Your task to perform on an android device: delete location history Image 0: 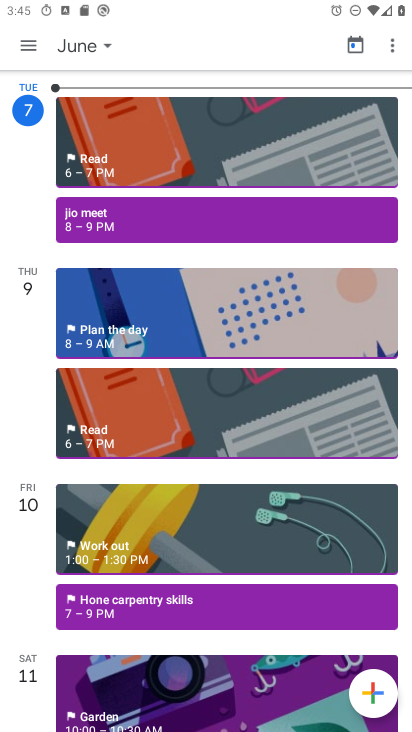
Step 0: press home button
Your task to perform on an android device: delete location history Image 1: 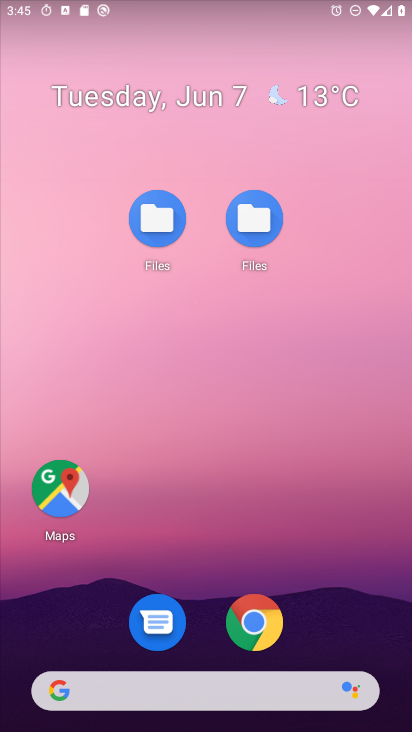
Step 1: drag from (325, 602) to (357, 255)
Your task to perform on an android device: delete location history Image 2: 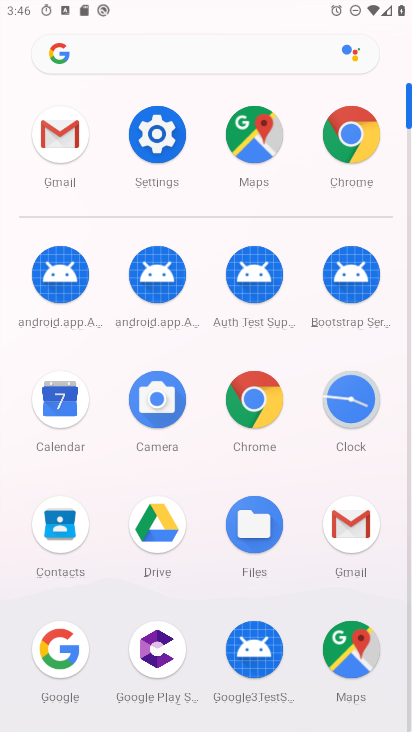
Step 2: click (407, 436)
Your task to perform on an android device: delete location history Image 3: 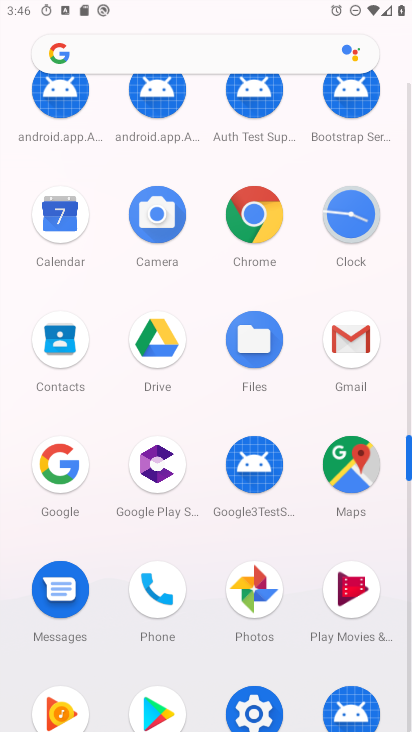
Step 3: click (406, 558)
Your task to perform on an android device: delete location history Image 4: 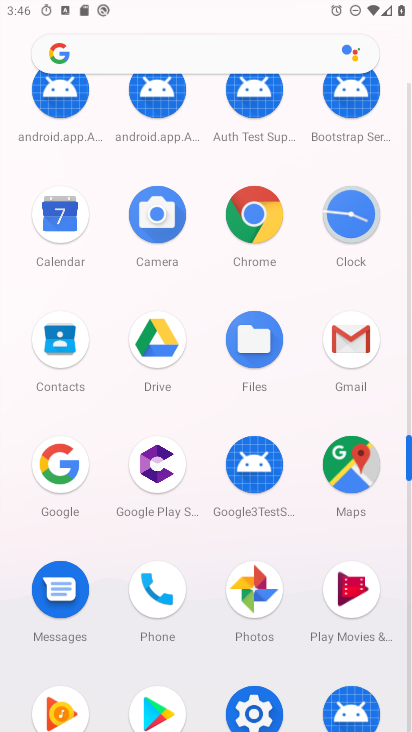
Step 4: click (409, 565)
Your task to perform on an android device: delete location history Image 5: 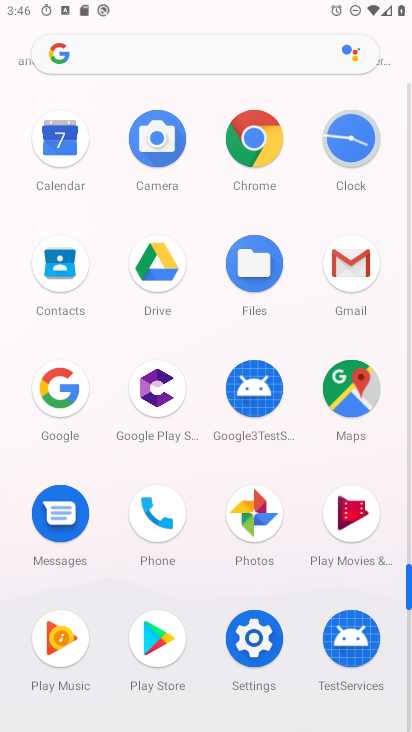
Step 5: click (260, 639)
Your task to perform on an android device: delete location history Image 6: 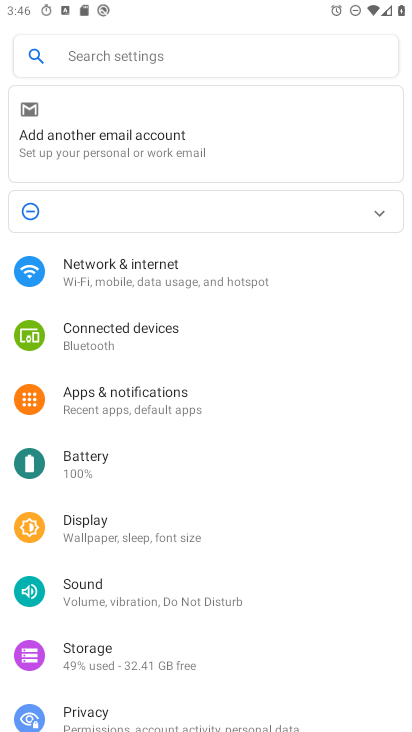
Step 6: click (356, 354)
Your task to perform on an android device: delete location history Image 7: 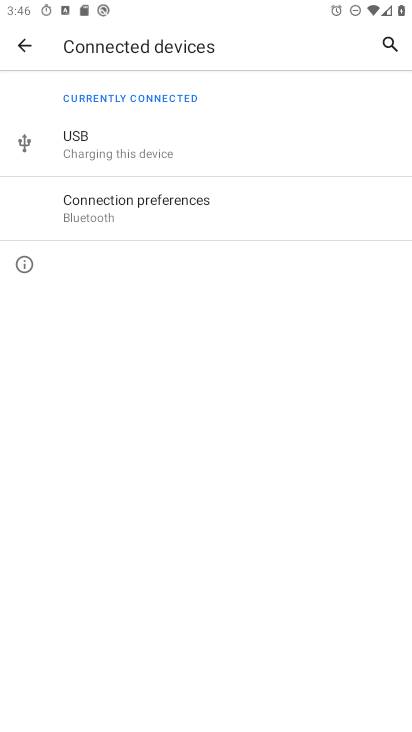
Step 7: press back button
Your task to perform on an android device: delete location history Image 8: 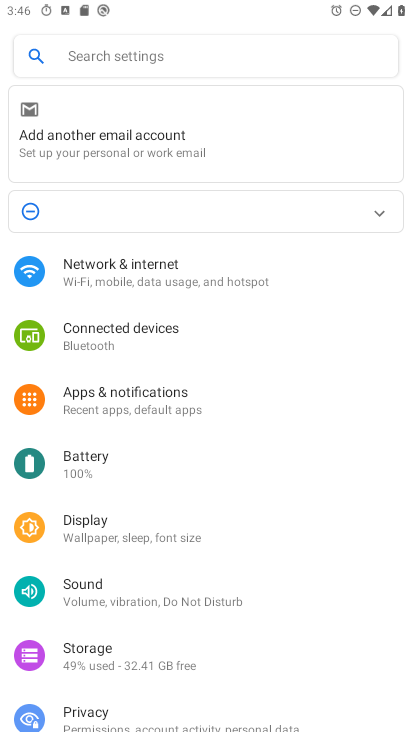
Step 8: drag from (271, 493) to (244, 312)
Your task to perform on an android device: delete location history Image 9: 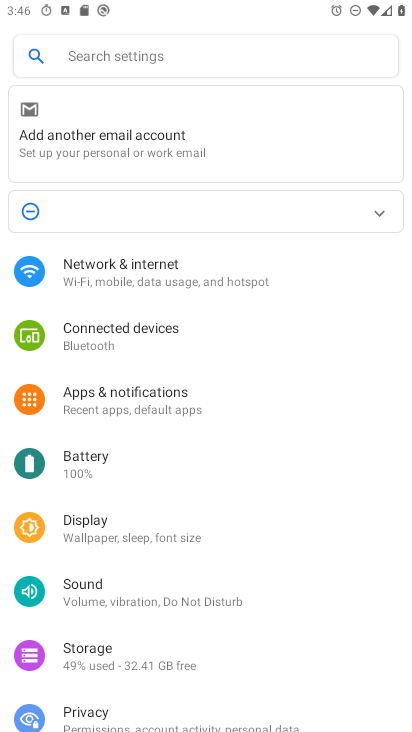
Step 9: drag from (359, 582) to (353, 332)
Your task to perform on an android device: delete location history Image 10: 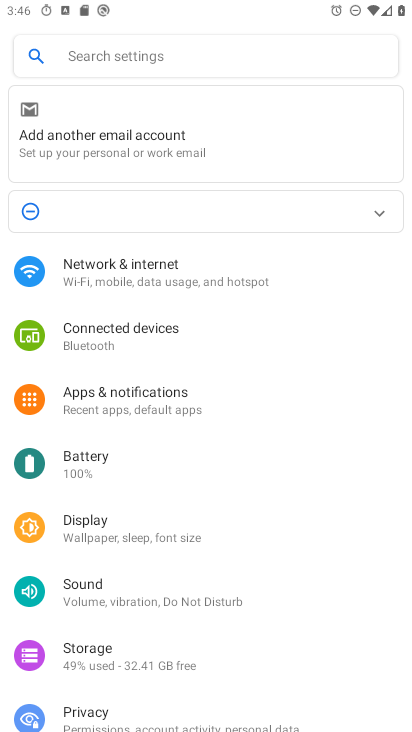
Step 10: drag from (316, 665) to (349, 416)
Your task to perform on an android device: delete location history Image 11: 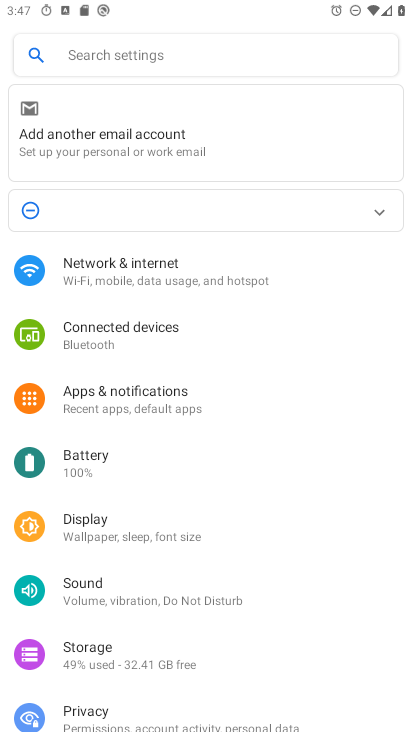
Step 11: drag from (273, 252) to (282, 183)
Your task to perform on an android device: delete location history Image 12: 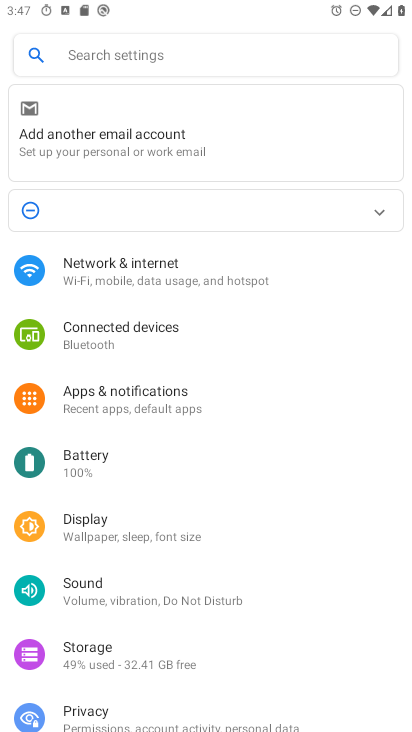
Step 12: drag from (295, 650) to (401, 66)
Your task to perform on an android device: delete location history Image 13: 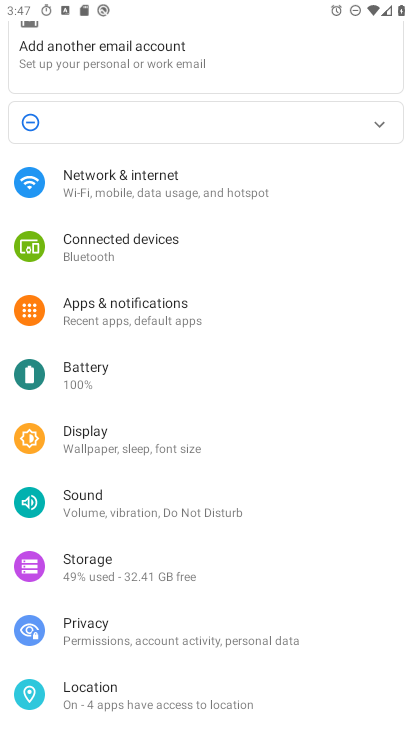
Step 13: drag from (340, 295) to (369, 14)
Your task to perform on an android device: delete location history Image 14: 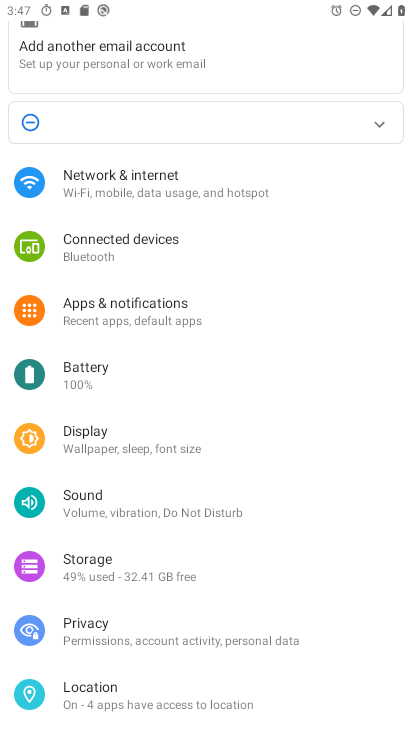
Step 14: click (127, 699)
Your task to perform on an android device: delete location history Image 15: 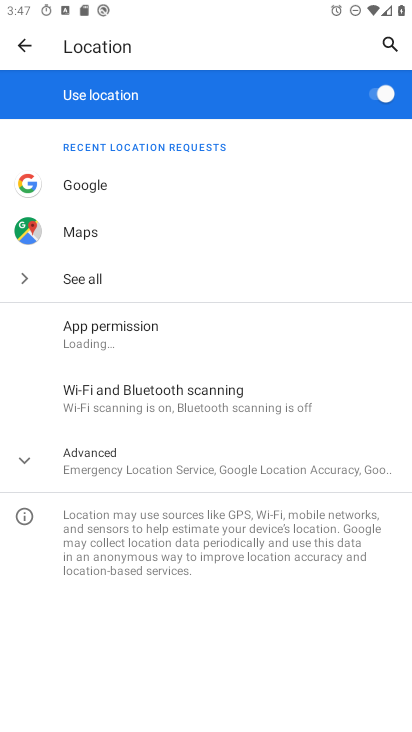
Step 15: click (164, 445)
Your task to perform on an android device: delete location history Image 16: 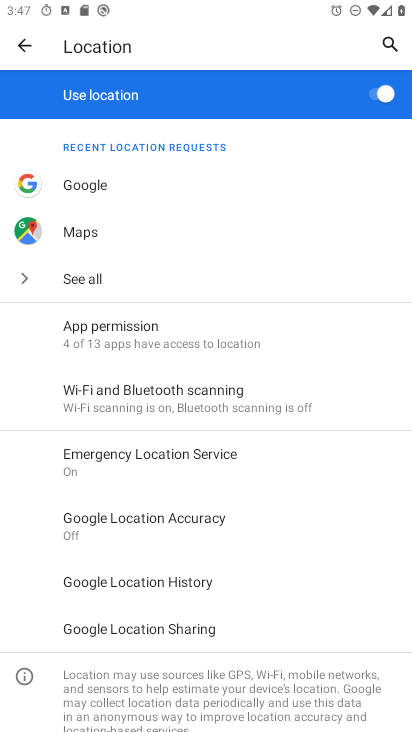
Step 16: click (196, 585)
Your task to perform on an android device: delete location history Image 17: 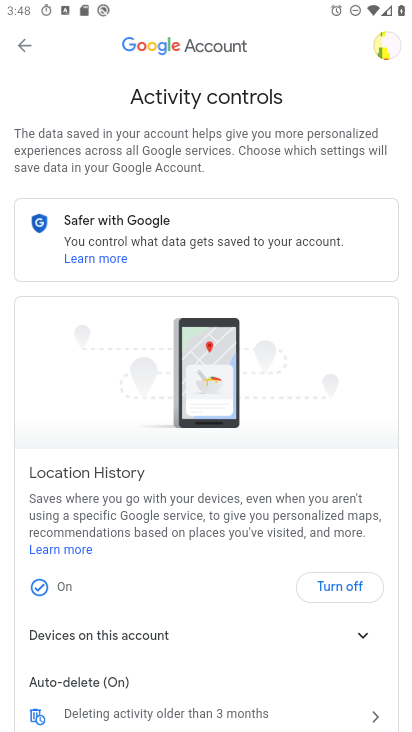
Step 17: drag from (152, 677) to (247, 184)
Your task to perform on an android device: delete location history Image 18: 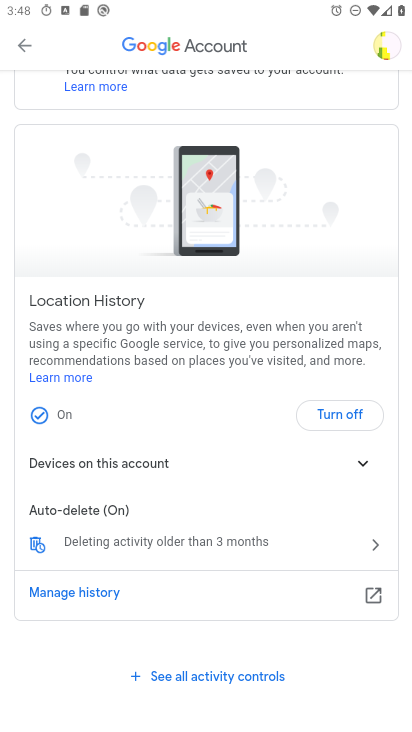
Step 18: drag from (204, 470) to (277, 97)
Your task to perform on an android device: delete location history Image 19: 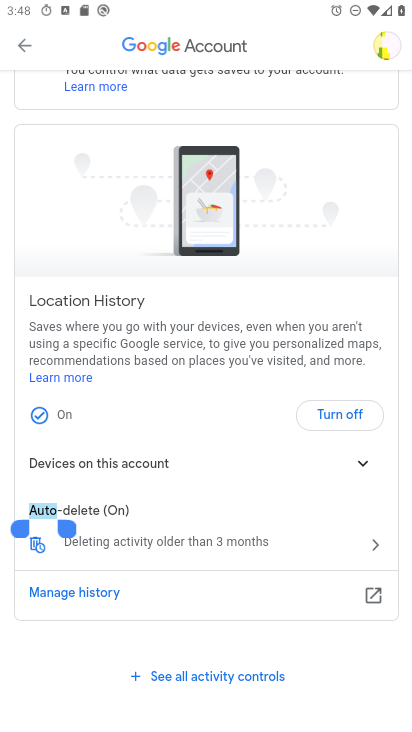
Step 19: drag from (133, 606) to (266, 149)
Your task to perform on an android device: delete location history Image 20: 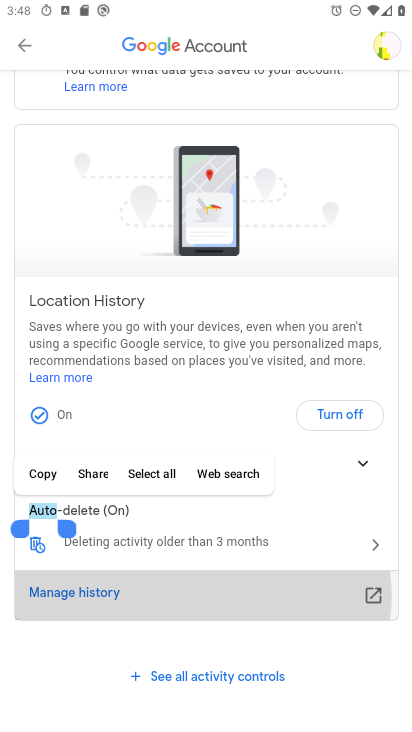
Step 20: click (188, 532)
Your task to perform on an android device: delete location history Image 21: 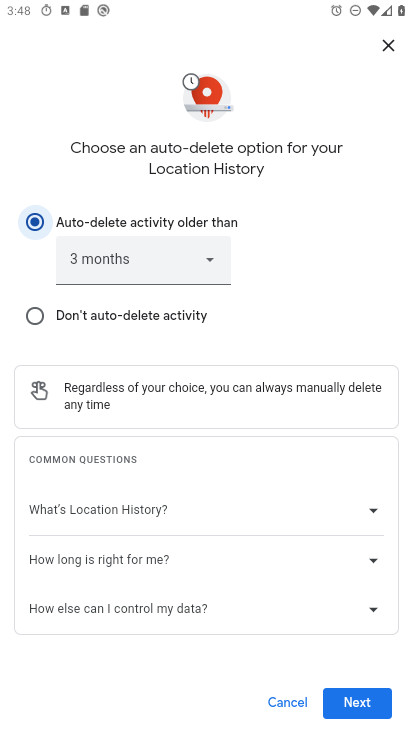
Step 21: click (362, 694)
Your task to perform on an android device: delete location history Image 22: 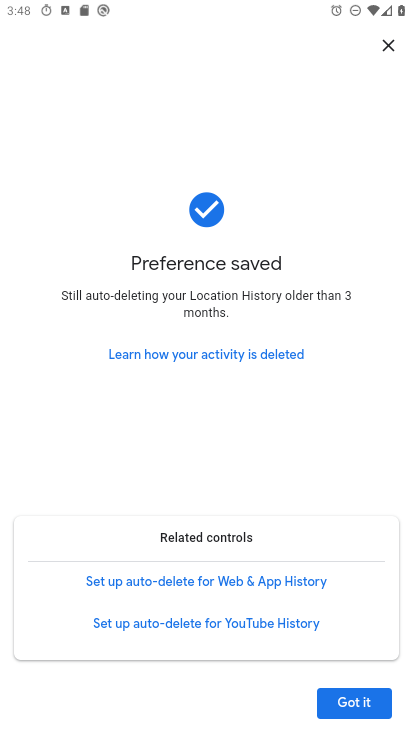
Step 22: click (372, 702)
Your task to perform on an android device: delete location history Image 23: 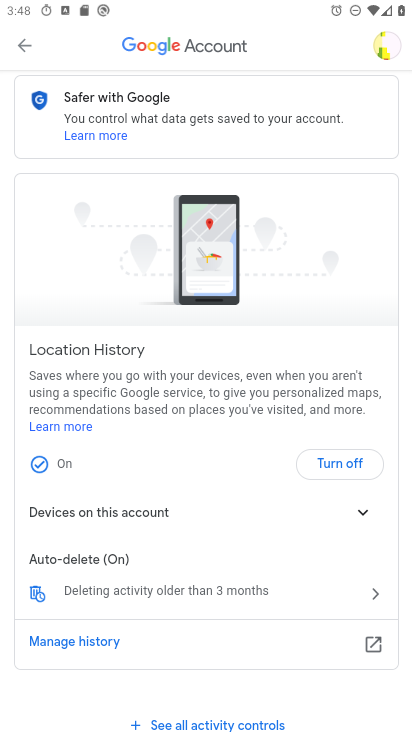
Step 23: task complete